Your task to perform on an android device: toggle notifications settings in the gmail app Image 0: 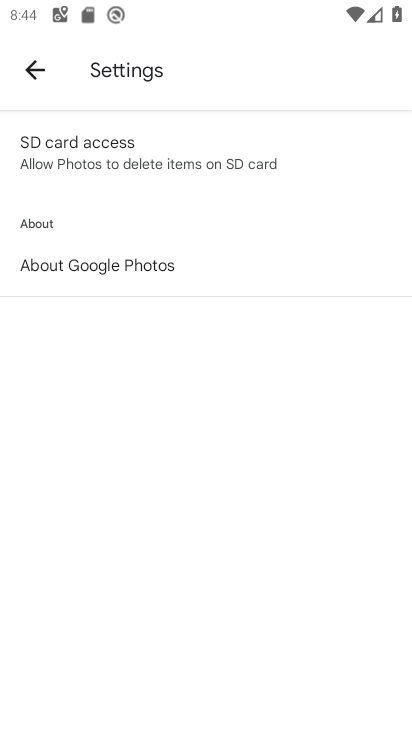
Step 0: press home button
Your task to perform on an android device: toggle notifications settings in the gmail app Image 1: 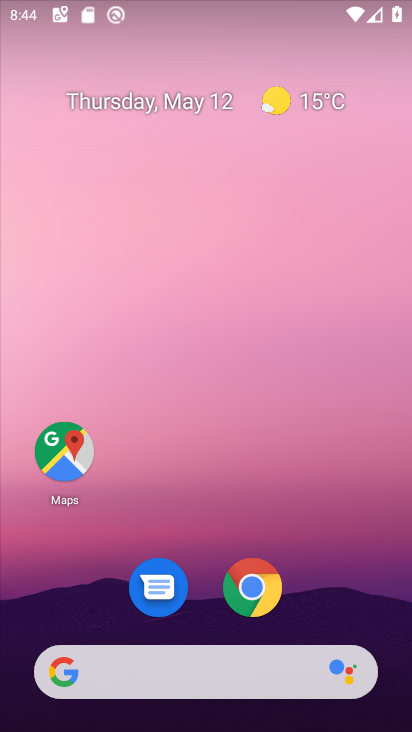
Step 1: drag from (372, 626) to (214, 67)
Your task to perform on an android device: toggle notifications settings in the gmail app Image 2: 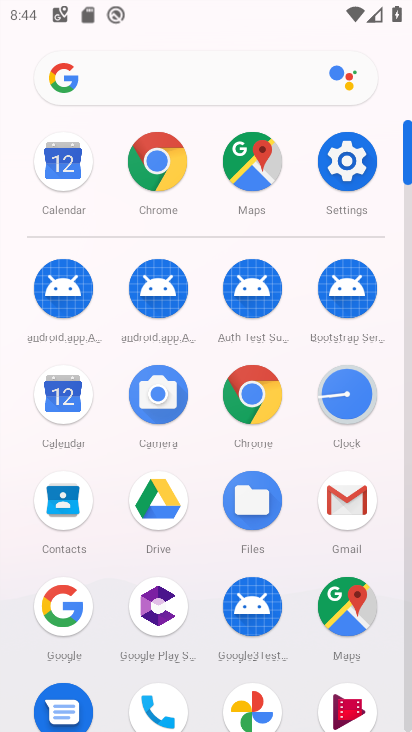
Step 2: click (350, 486)
Your task to perform on an android device: toggle notifications settings in the gmail app Image 3: 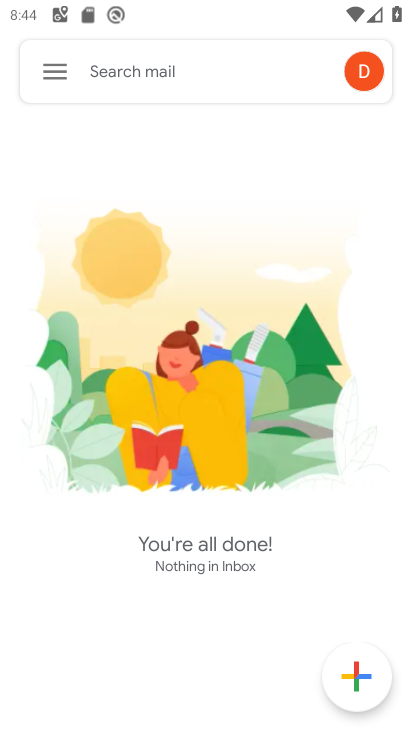
Step 3: click (58, 89)
Your task to perform on an android device: toggle notifications settings in the gmail app Image 4: 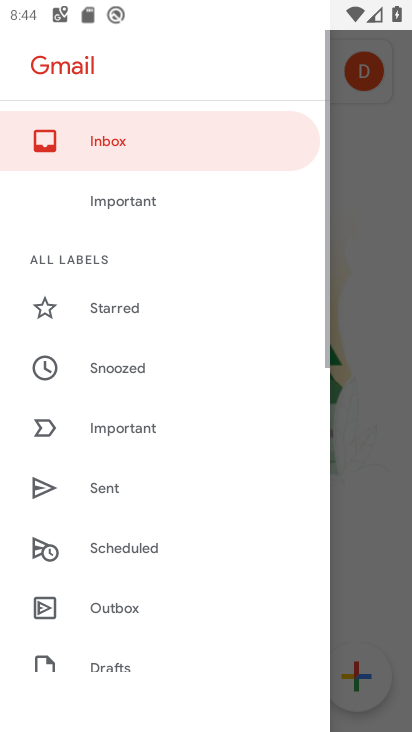
Step 4: drag from (119, 634) to (172, 85)
Your task to perform on an android device: toggle notifications settings in the gmail app Image 5: 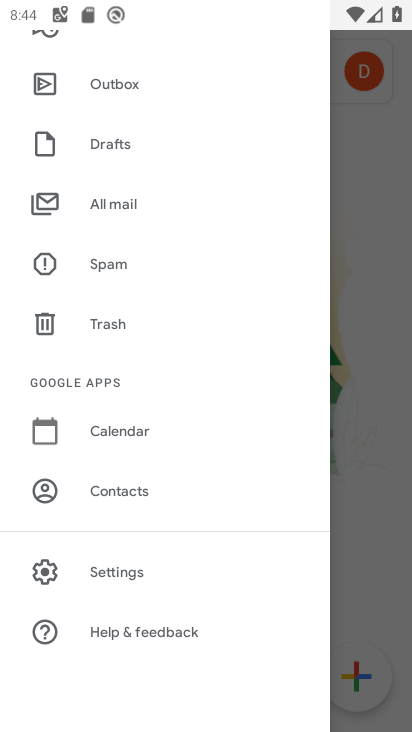
Step 5: click (149, 568)
Your task to perform on an android device: toggle notifications settings in the gmail app Image 6: 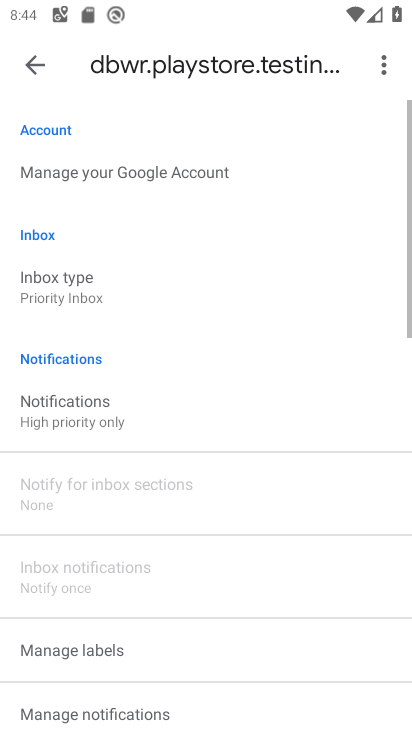
Step 6: click (123, 406)
Your task to perform on an android device: toggle notifications settings in the gmail app Image 7: 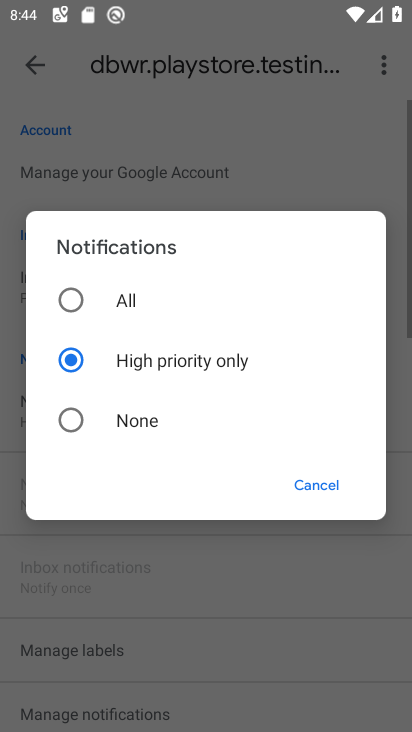
Step 7: click (120, 297)
Your task to perform on an android device: toggle notifications settings in the gmail app Image 8: 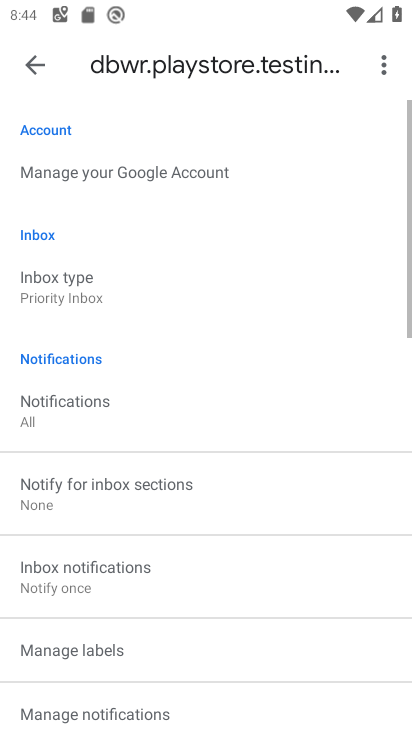
Step 8: task complete